Your task to perform on an android device: Open Yahoo.com Image 0: 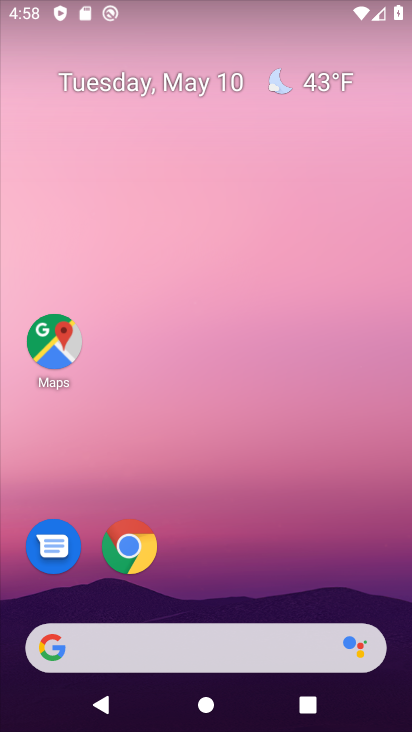
Step 0: drag from (271, 409) to (202, 73)
Your task to perform on an android device: Open Yahoo.com Image 1: 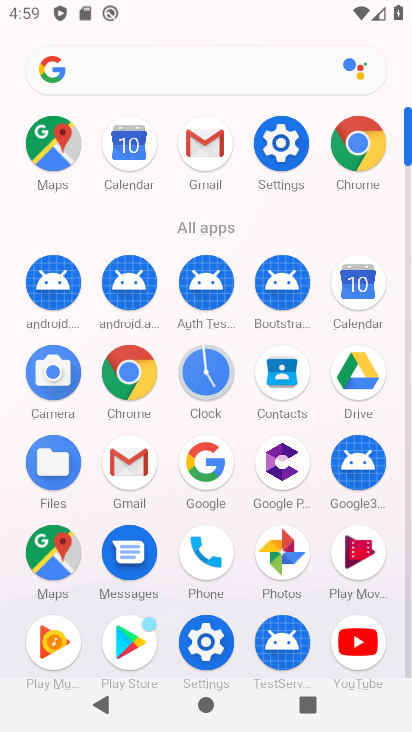
Step 1: click (348, 137)
Your task to perform on an android device: Open Yahoo.com Image 2: 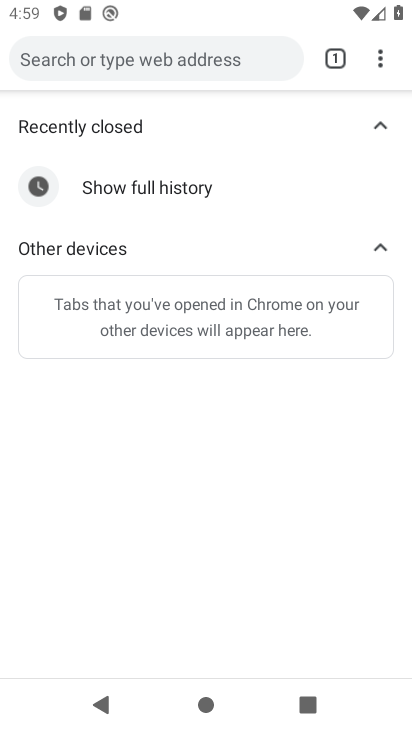
Step 2: drag from (378, 57) to (149, 115)
Your task to perform on an android device: Open Yahoo.com Image 3: 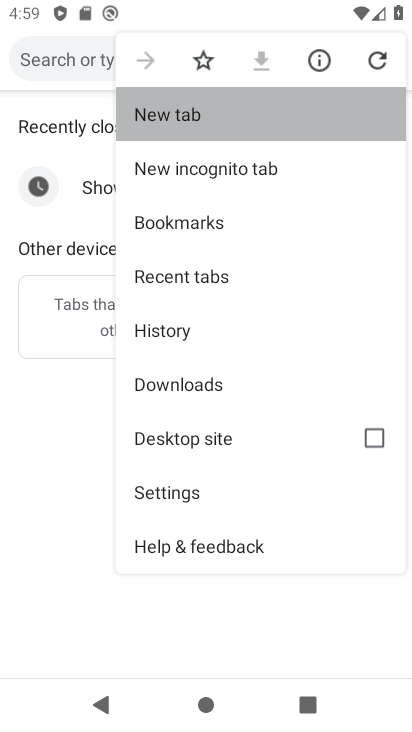
Step 3: click (149, 115)
Your task to perform on an android device: Open Yahoo.com Image 4: 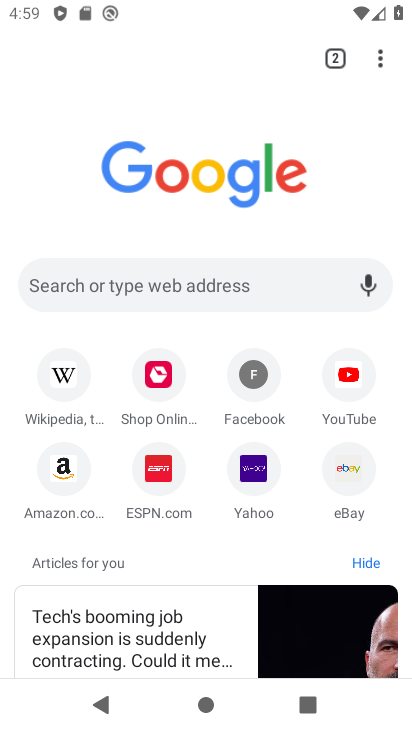
Step 4: click (244, 451)
Your task to perform on an android device: Open Yahoo.com Image 5: 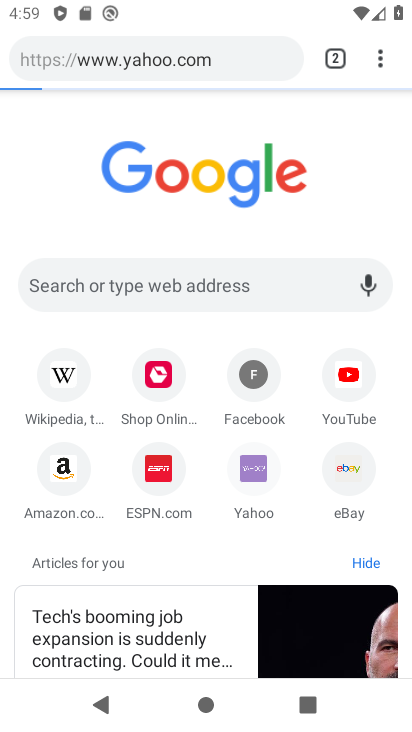
Step 5: click (246, 452)
Your task to perform on an android device: Open Yahoo.com Image 6: 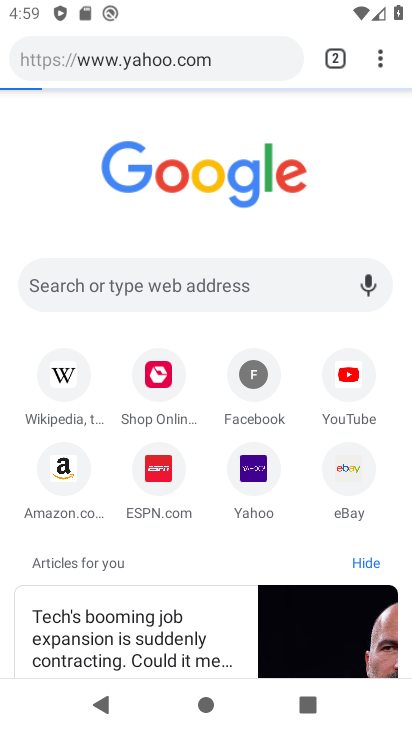
Step 6: click (247, 454)
Your task to perform on an android device: Open Yahoo.com Image 7: 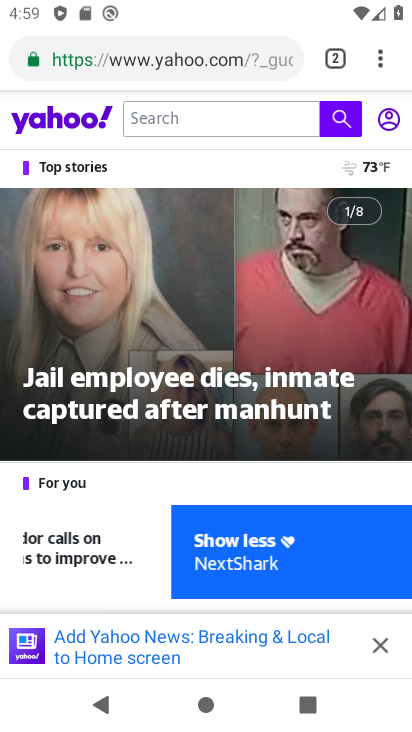
Step 7: task complete